Your task to perform on an android device: Open Google Chrome and click the shortcut for Amazon.com Image 0: 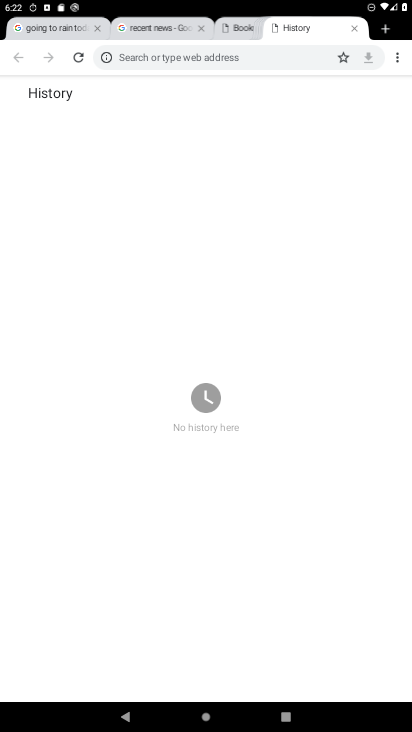
Step 0: press home button
Your task to perform on an android device: Open Google Chrome and click the shortcut for Amazon.com Image 1: 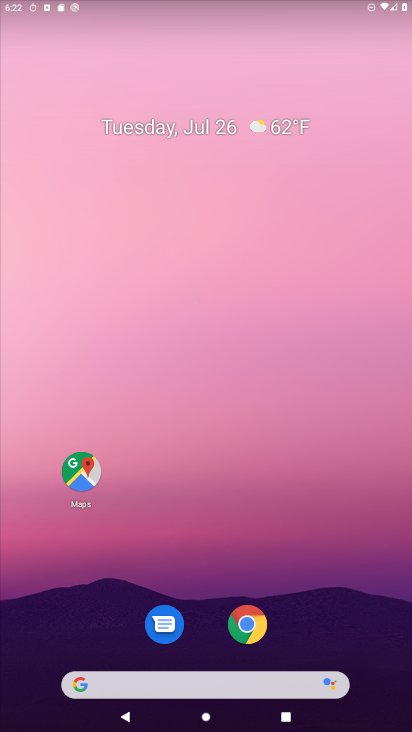
Step 1: drag from (128, 684) to (332, 3)
Your task to perform on an android device: Open Google Chrome and click the shortcut for Amazon.com Image 2: 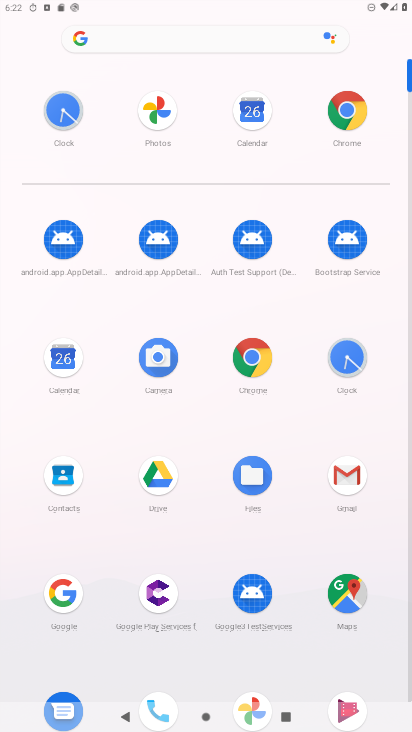
Step 2: click (285, 361)
Your task to perform on an android device: Open Google Chrome and click the shortcut for Amazon.com Image 3: 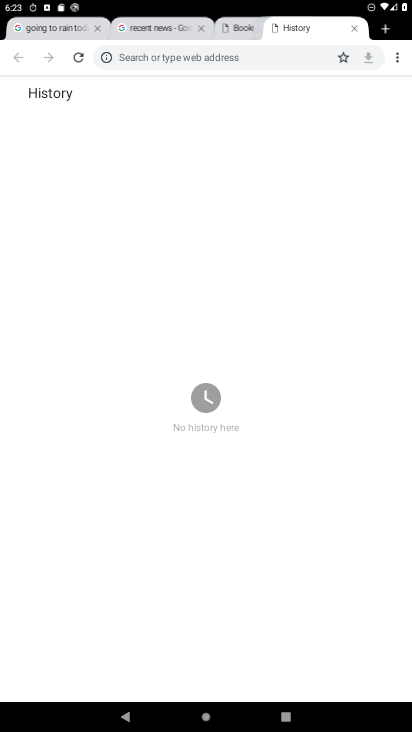
Step 3: click (402, 64)
Your task to perform on an android device: Open Google Chrome and click the shortcut for Amazon.com Image 4: 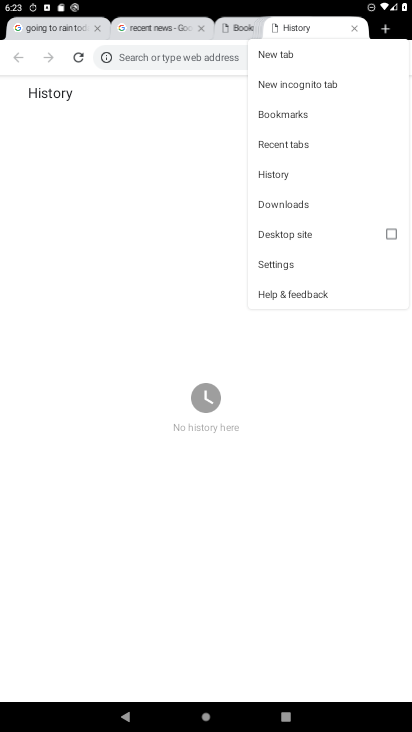
Step 4: click (229, 384)
Your task to perform on an android device: Open Google Chrome and click the shortcut for Amazon.com Image 5: 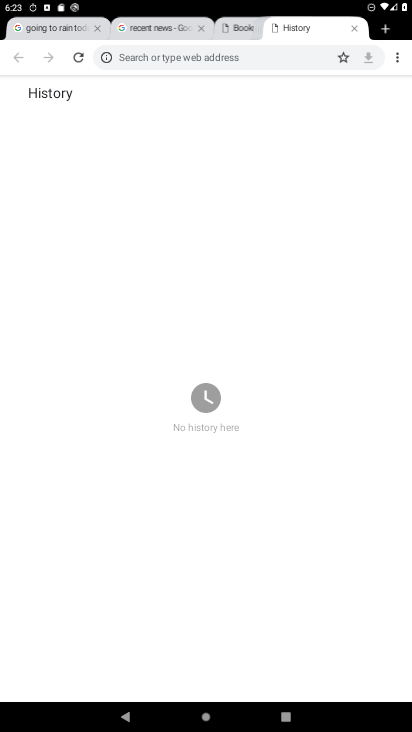
Step 5: click (252, 361)
Your task to perform on an android device: Open Google Chrome and click the shortcut for Amazon.com Image 6: 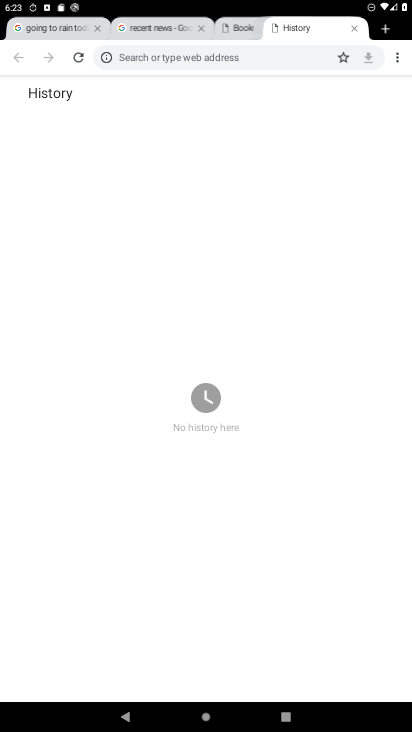
Step 6: drag from (397, 53) to (310, 54)
Your task to perform on an android device: Open Google Chrome and click the shortcut for Amazon.com Image 7: 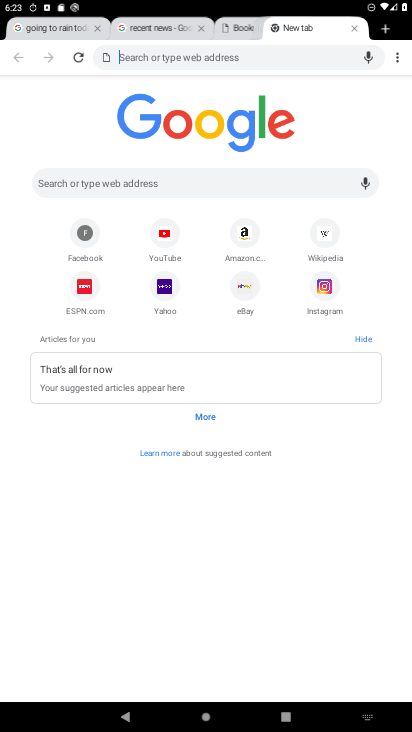
Step 7: click (246, 242)
Your task to perform on an android device: Open Google Chrome and click the shortcut for Amazon.com Image 8: 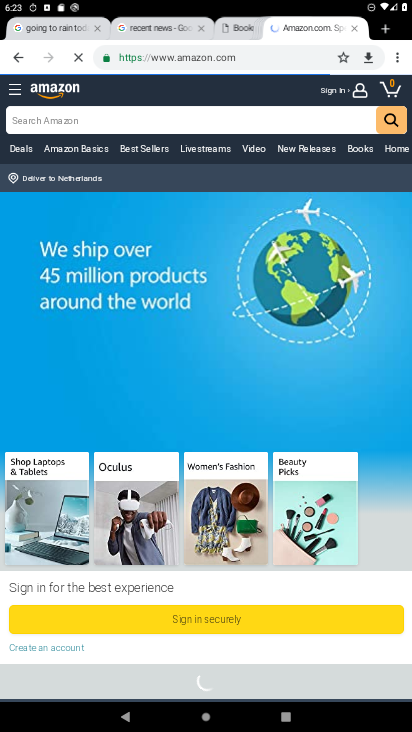
Step 8: click (399, 56)
Your task to perform on an android device: Open Google Chrome and click the shortcut for Amazon.com Image 9: 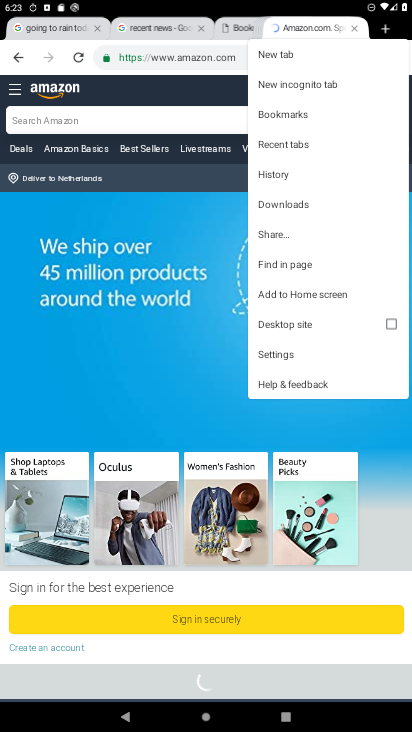
Step 9: click (311, 290)
Your task to perform on an android device: Open Google Chrome and click the shortcut for Amazon.com Image 10: 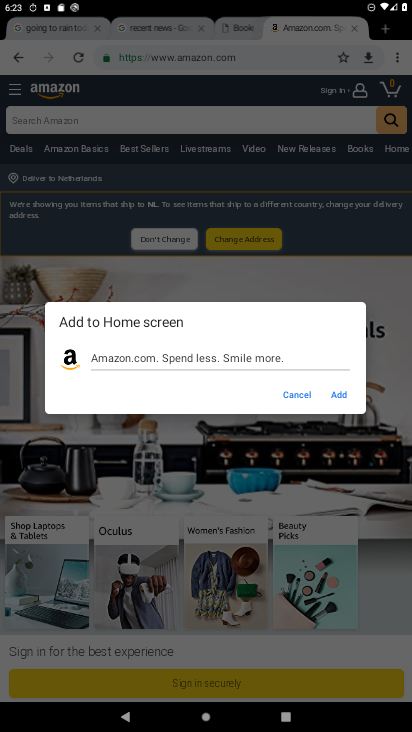
Step 10: click (336, 395)
Your task to perform on an android device: Open Google Chrome and click the shortcut for Amazon.com Image 11: 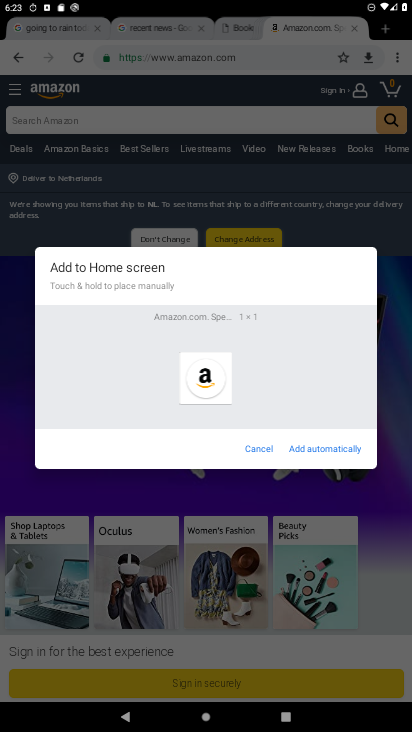
Step 11: click (327, 445)
Your task to perform on an android device: Open Google Chrome and click the shortcut for Amazon.com Image 12: 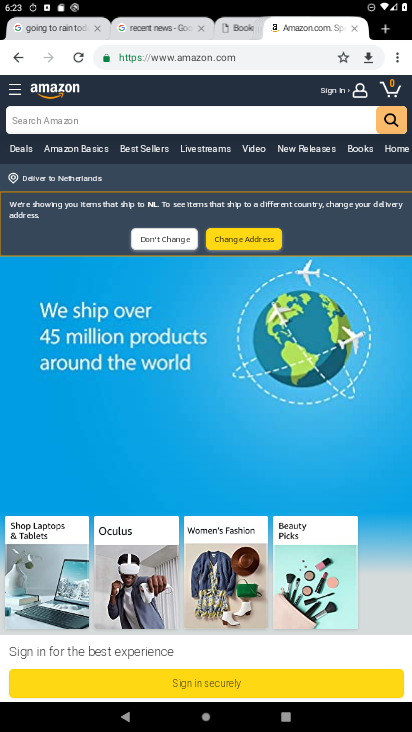
Step 12: task complete